Your task to perform on an android device: Add macbook pro 15 inch to the cart on ebay.com Image 0: 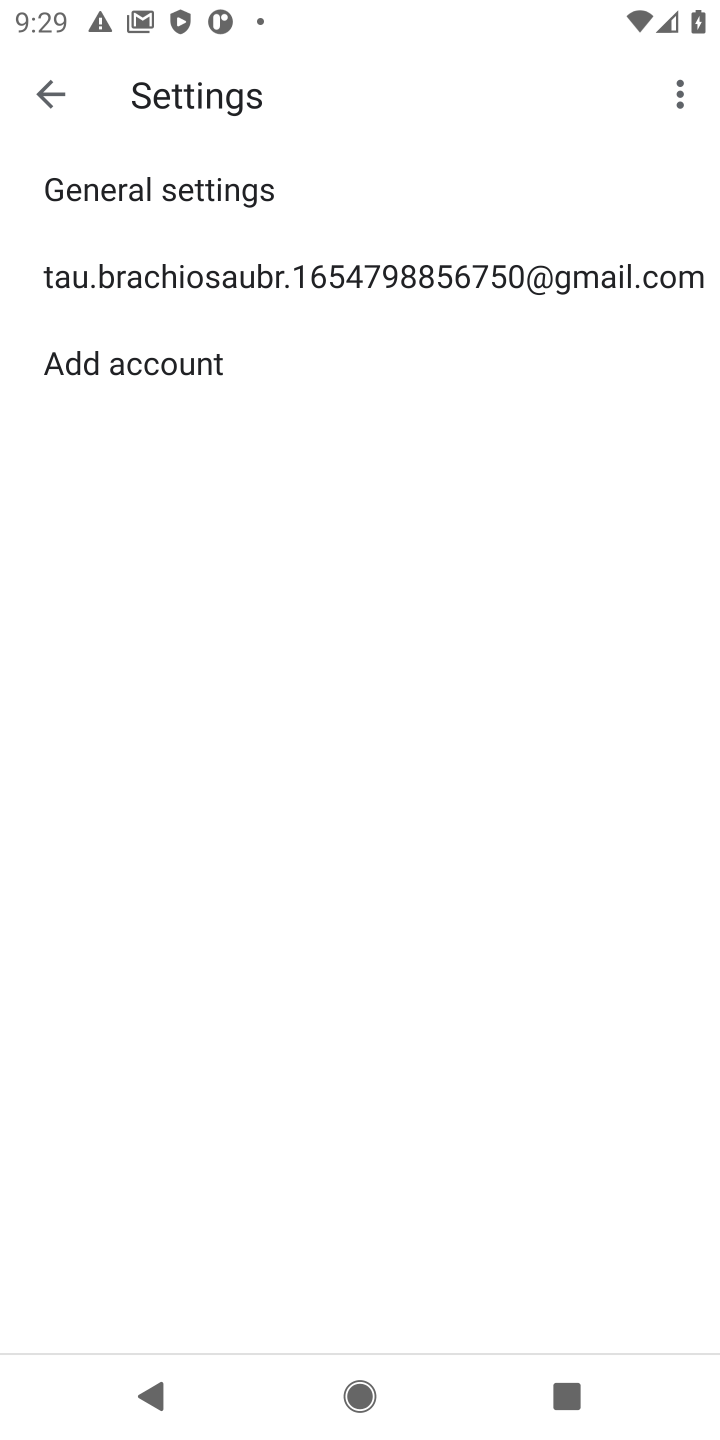
Step 0: press home button
Your task to perform on an android device: Add macbook pro 15 inch to the cart on ebay.com Image 1: 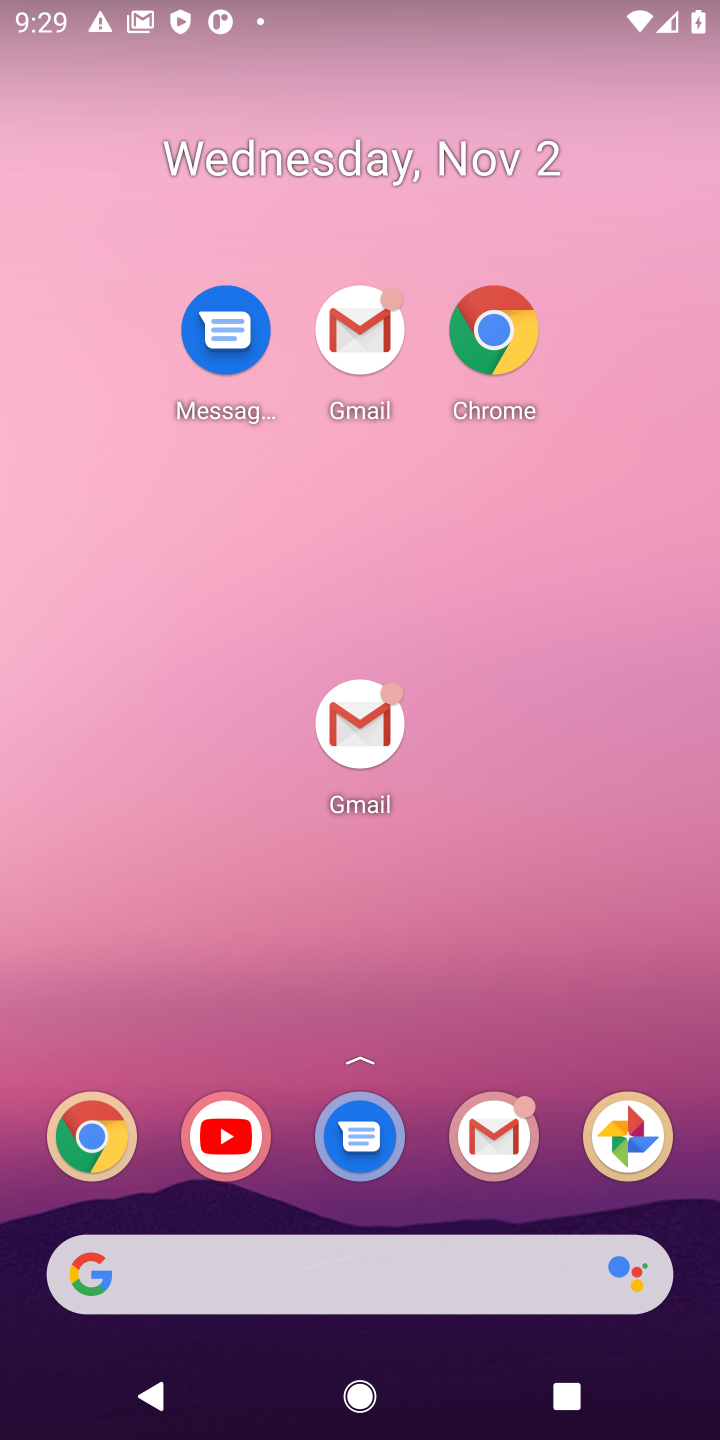
Step 1: drag from (355, 1111) to (478, 542)
Your task to perform on an android device: Add macbook pro 15 inch to the cart on ebay.com Image 2: 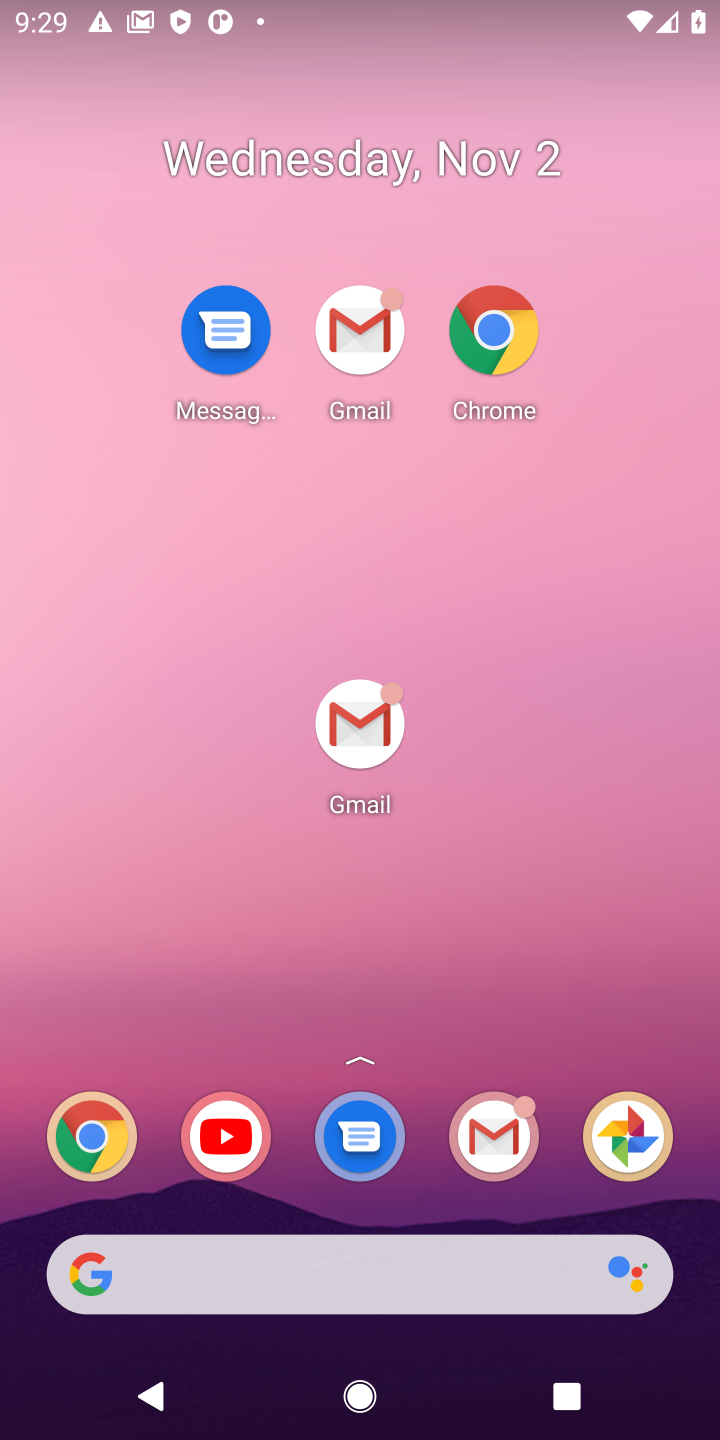
Step 2: drag from (287, 1169) to (237, 337)
Your task to perform on an android device: Add macbook pro 15 inch to the cart on ebay.com Image 3: 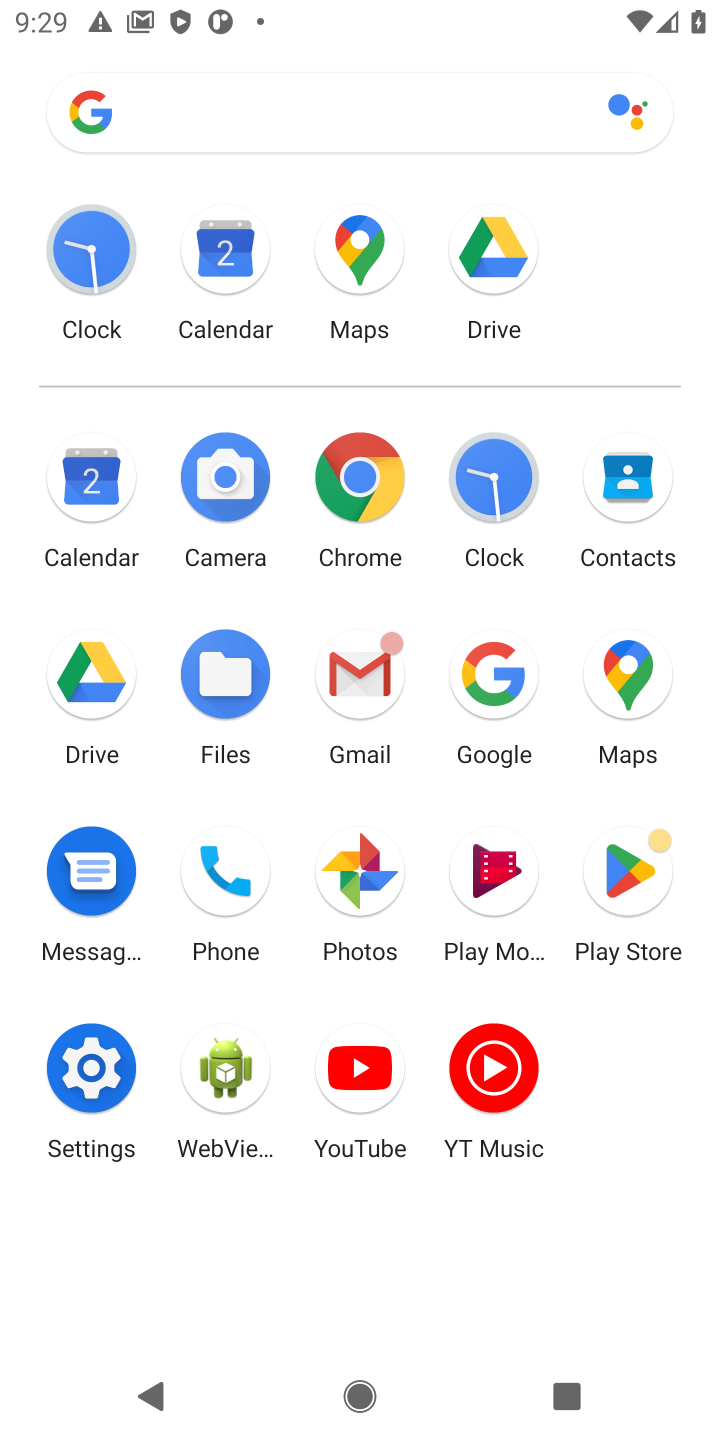
Step 3: click (486, 675)
Your task to perform on an android device: Add macbook pro 15 inch to the cart on ebay.com Image 4: 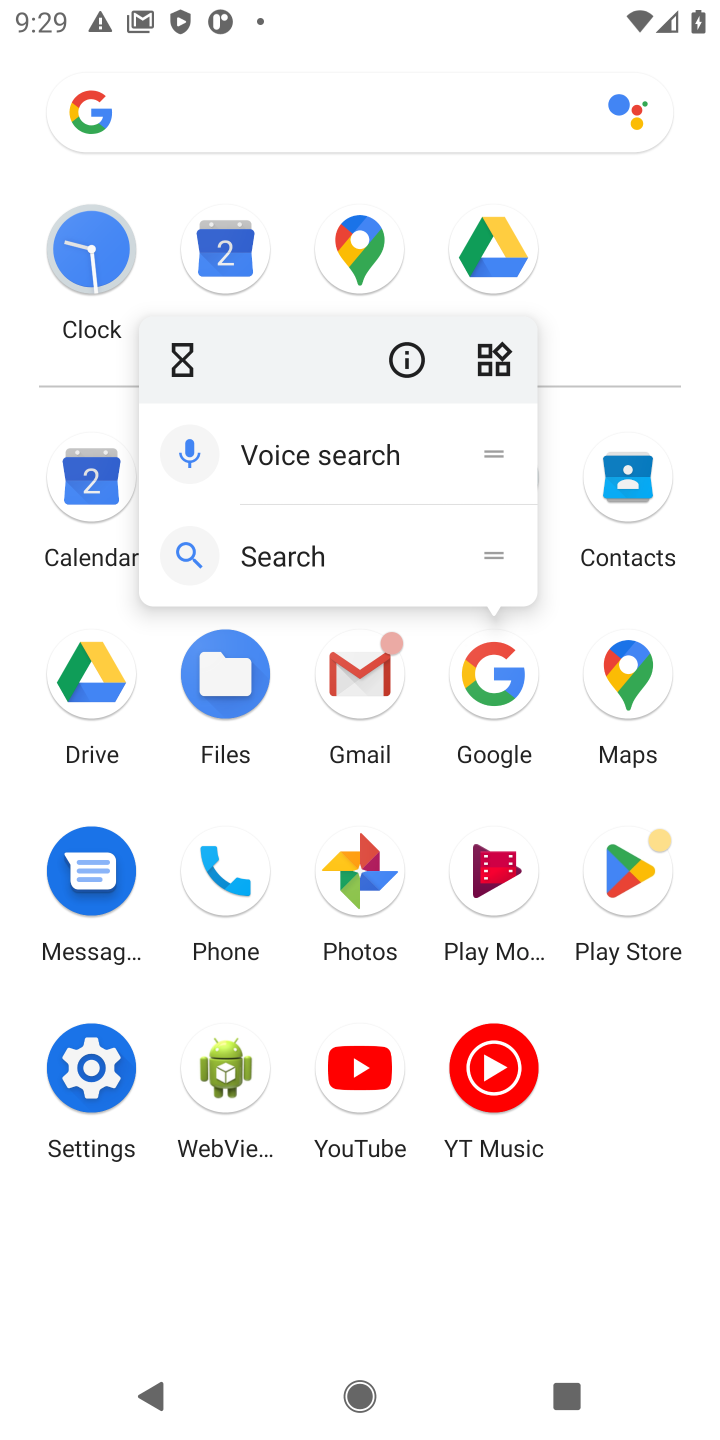
Step 4: click (480, 672)
Your task to perform on an android device: Add macbook pro 15 inch to the cart on ebay.com Image 5: 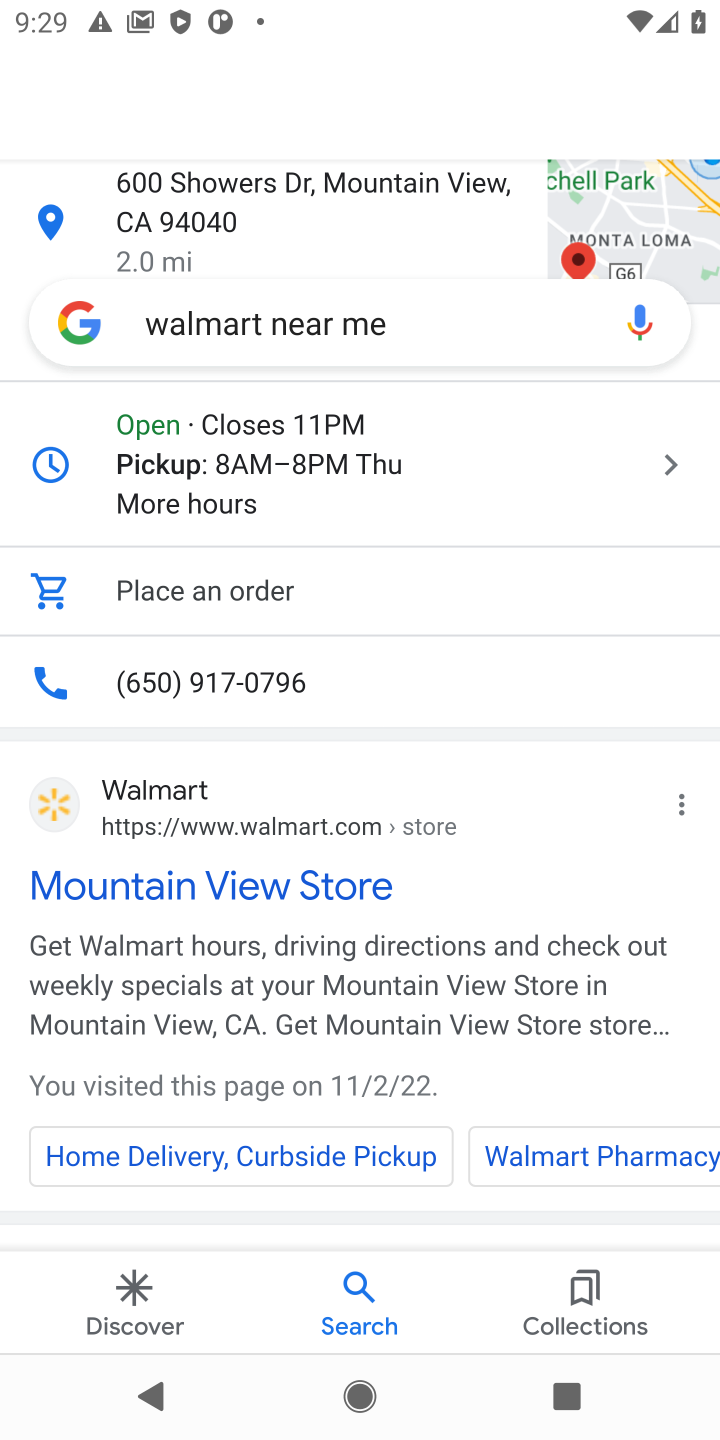
Step 5: click (391, 328)
Your task to perform on an android device: Add macbook pro 15 inch to the cart on ebay.com Image 6: 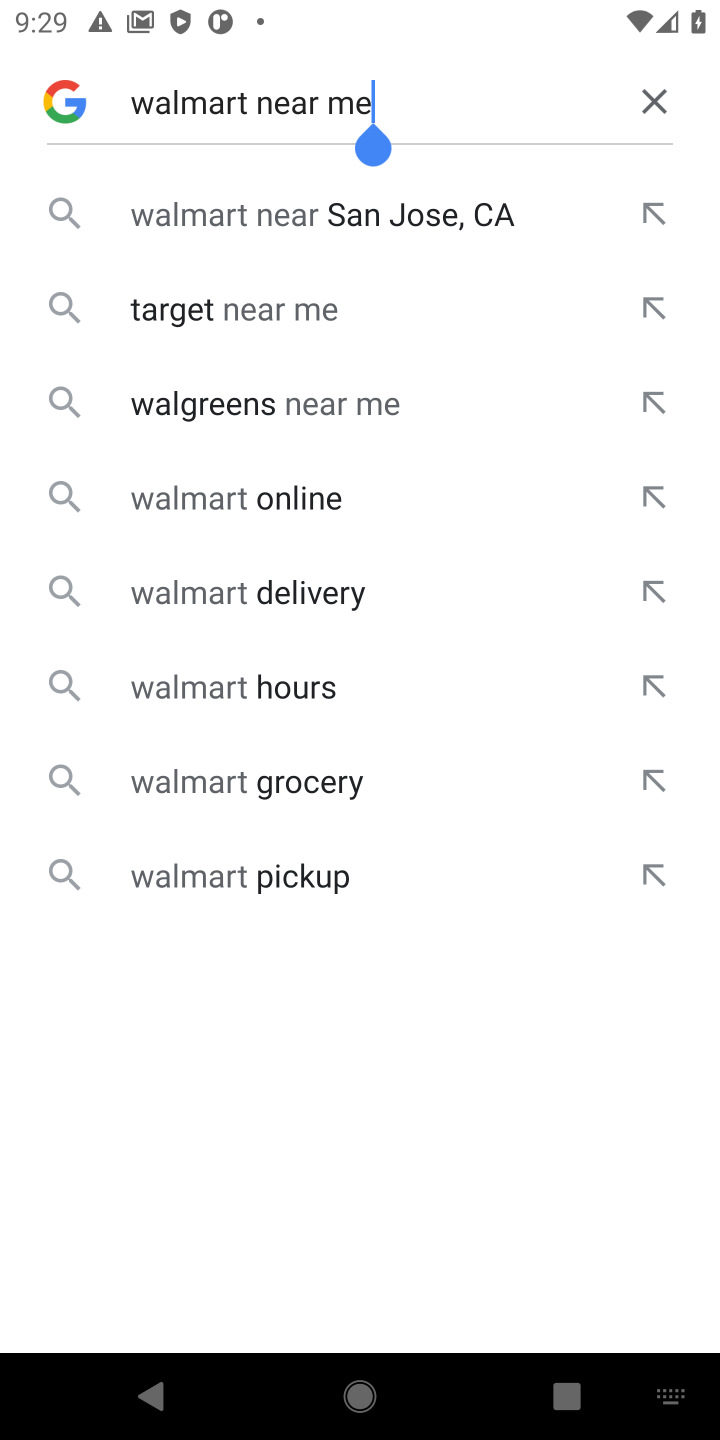
Step 6: click (657, 101)
Your task to perform on an android device: Add macbook pro 15 inch to the cart on ebay.com Image 7: 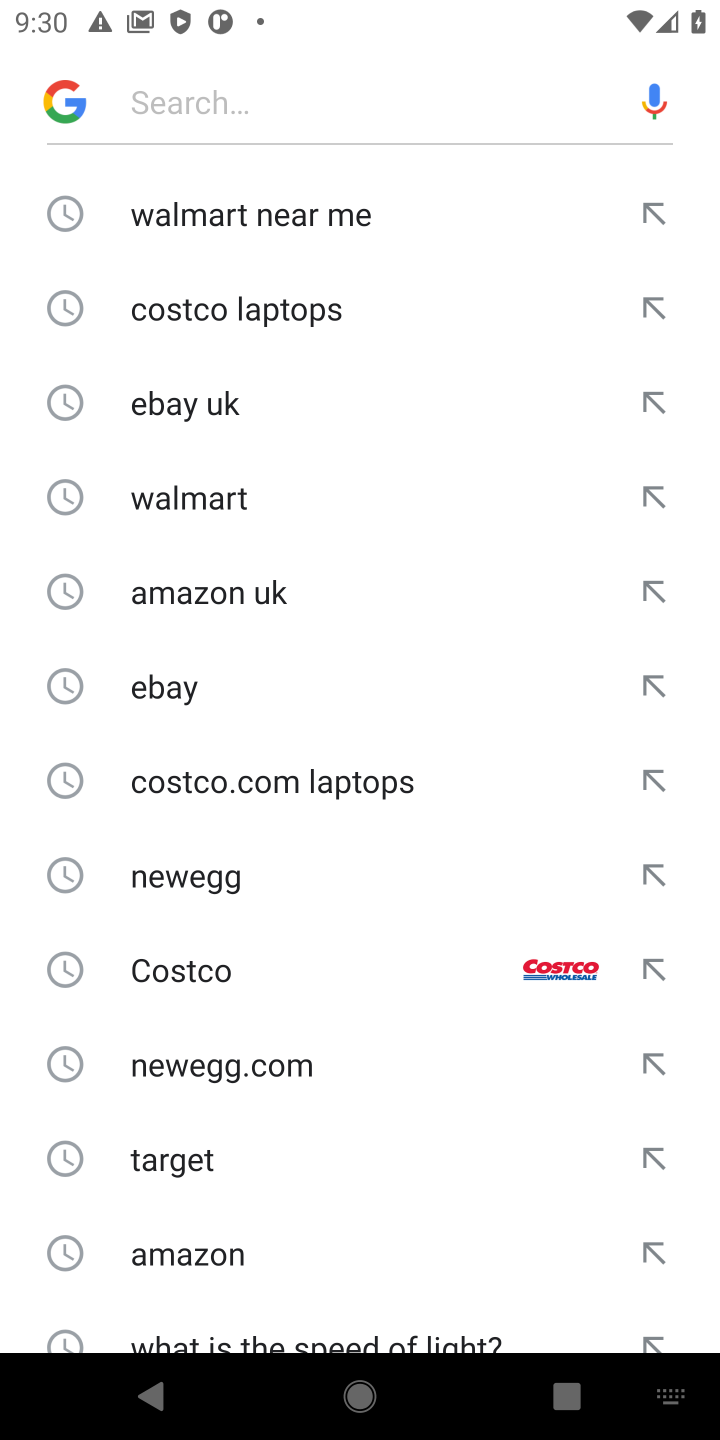
Step 7: click (263, 86)
Your task to perform on an android device: Add macbook pro 15 inch to the cart on ebay.com Image 8: 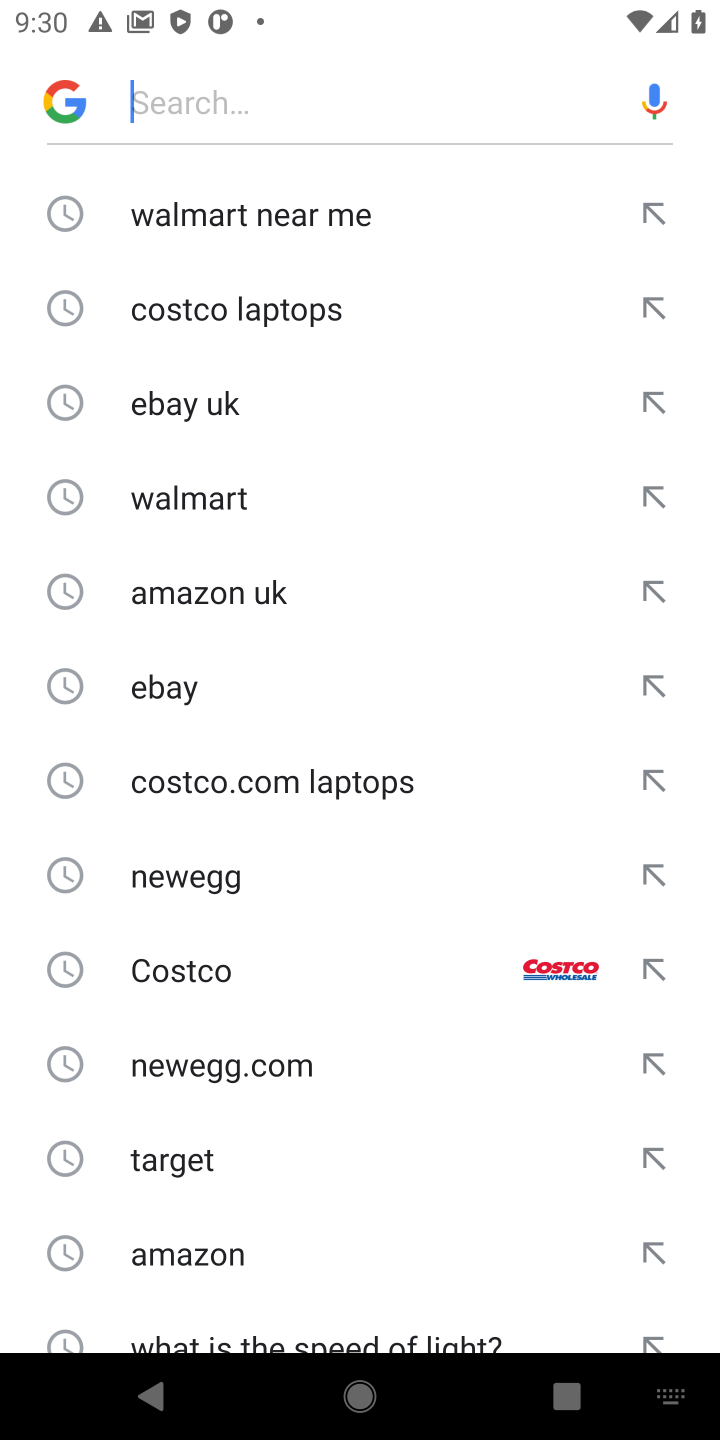
Step 8: type "ebay "
Your task to perform on an android device: Add macbook pro 15 inch to the cart on ebay.com Image 9: 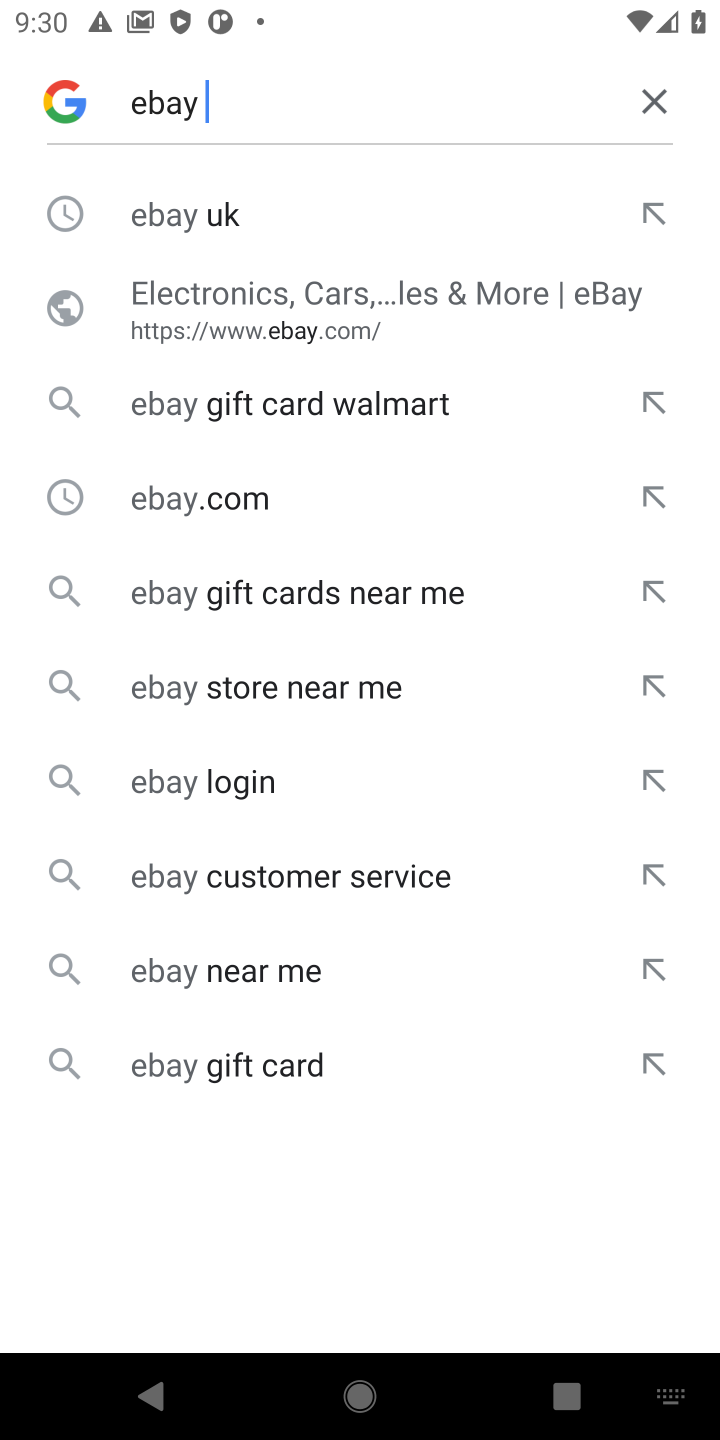
Step 9: click (146, 200)
Your task to perform on an android device: Add macbook pro 15 inch to the cart on ebay.com Image 10: 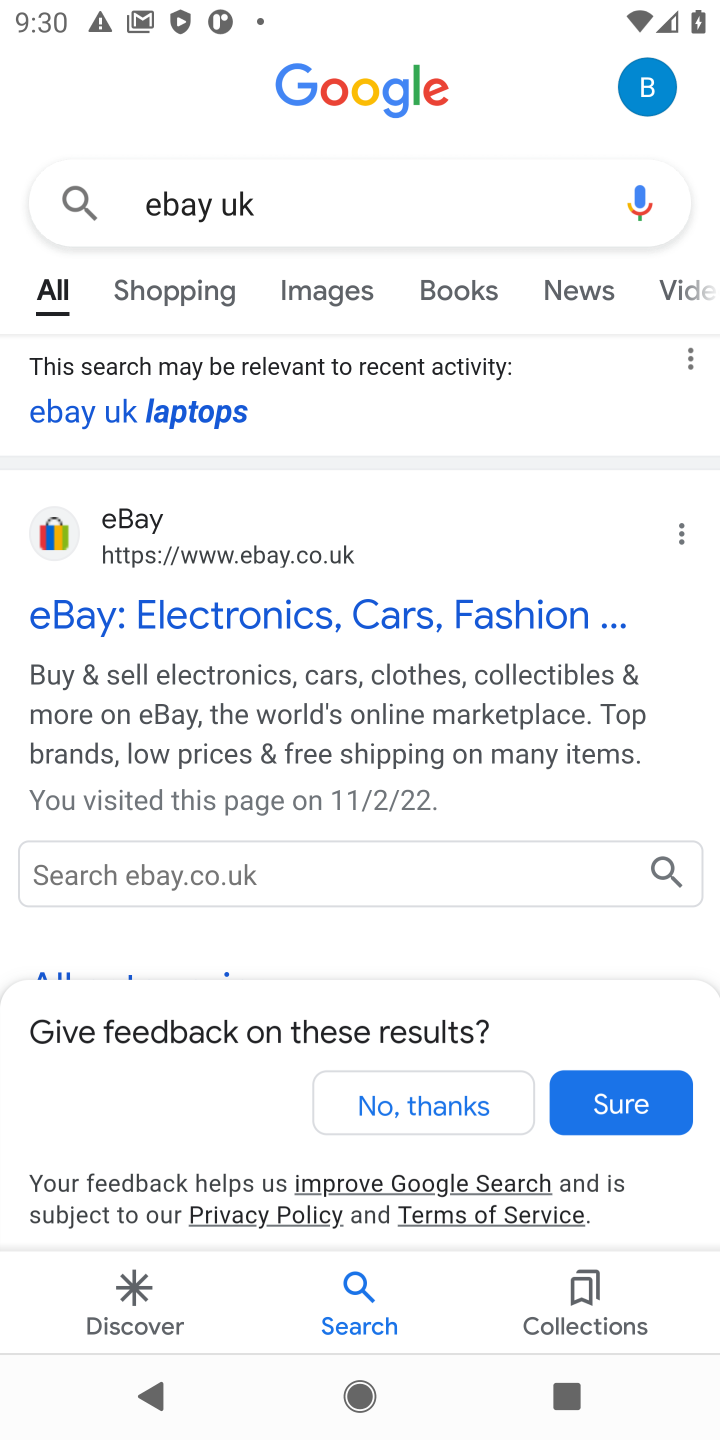
Step 10: click (64, 517)
Your task to perform on an android device: Add macbook pro 15 inch to the cart on ebay.com Image 11: 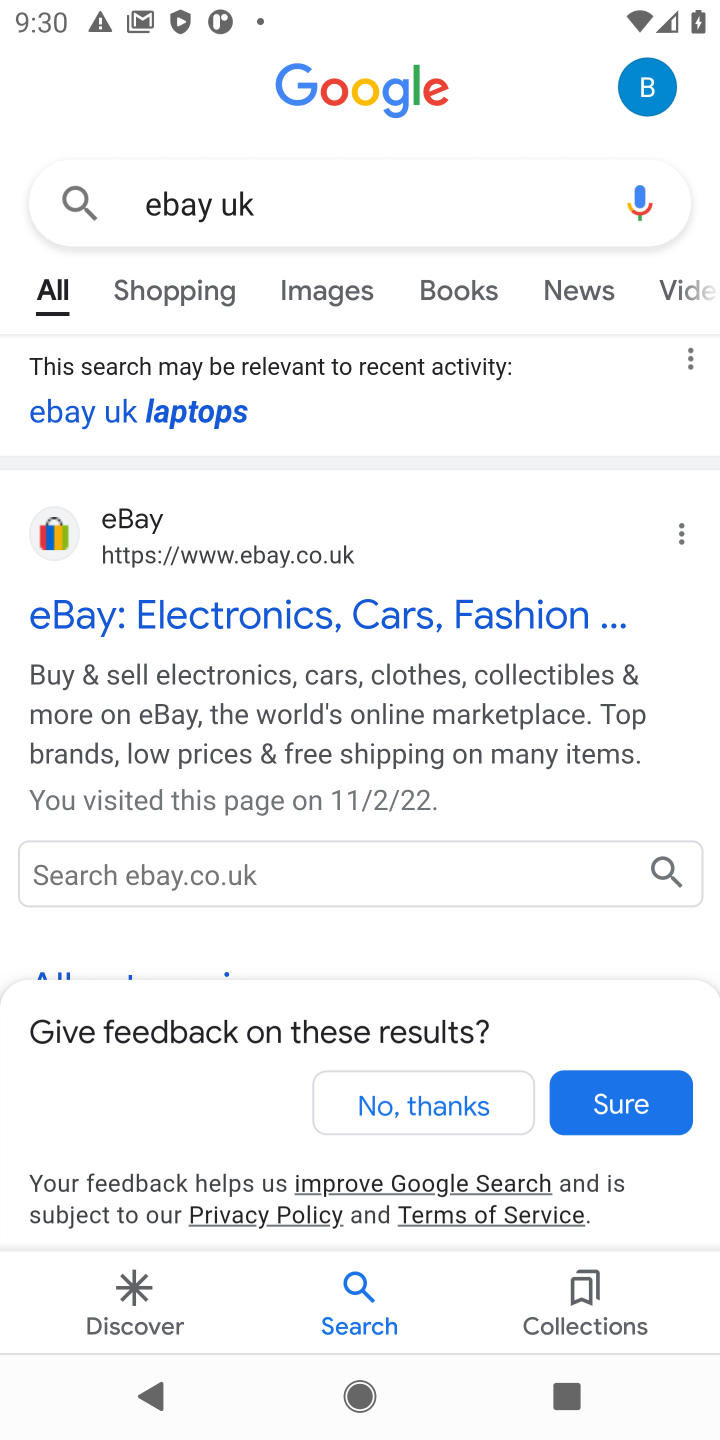
Step 11: click (45, 536)
Your task to perform on an android device: Add macbook pro 15 inch to the cart on ebay.com Image 12: 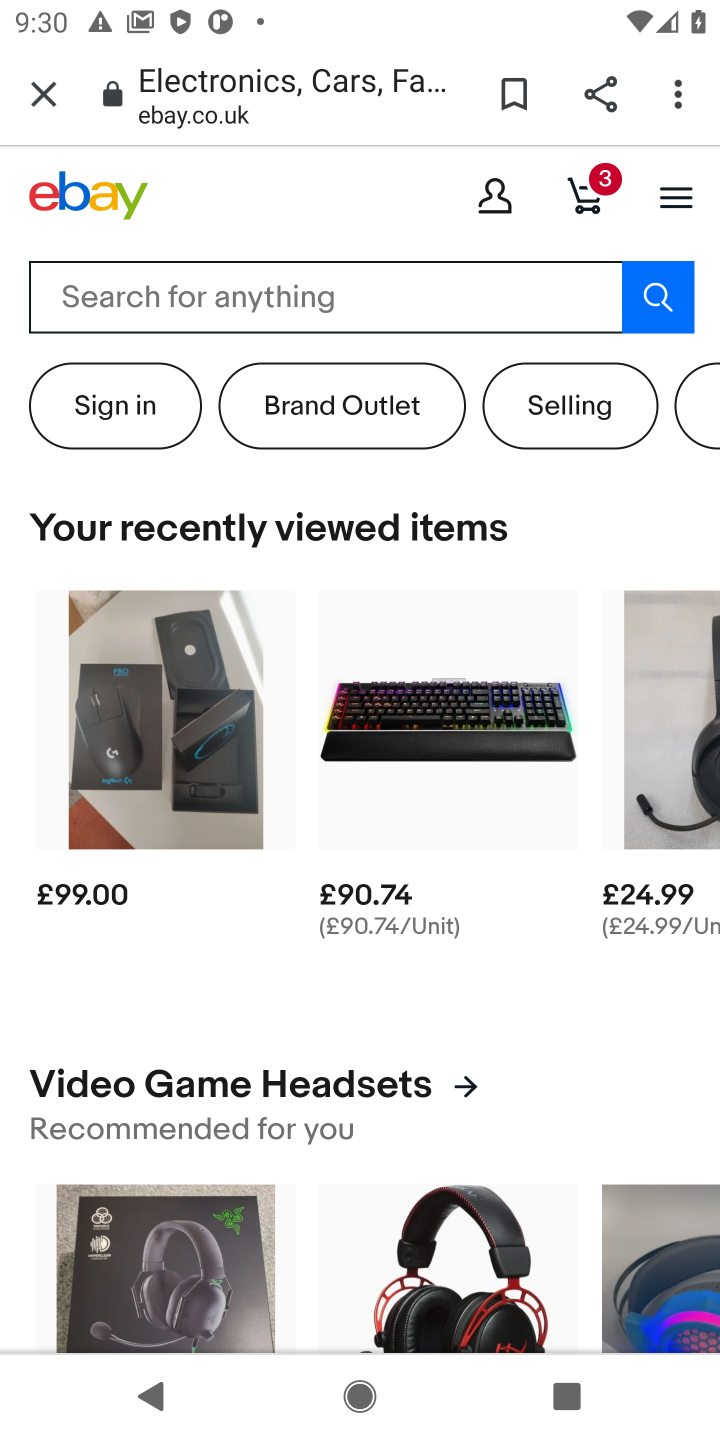
Step 12: click (208, 298)
Your task to perform on an android device: Add macbook pro 15 inch to the cart on ebay.com Image 13: 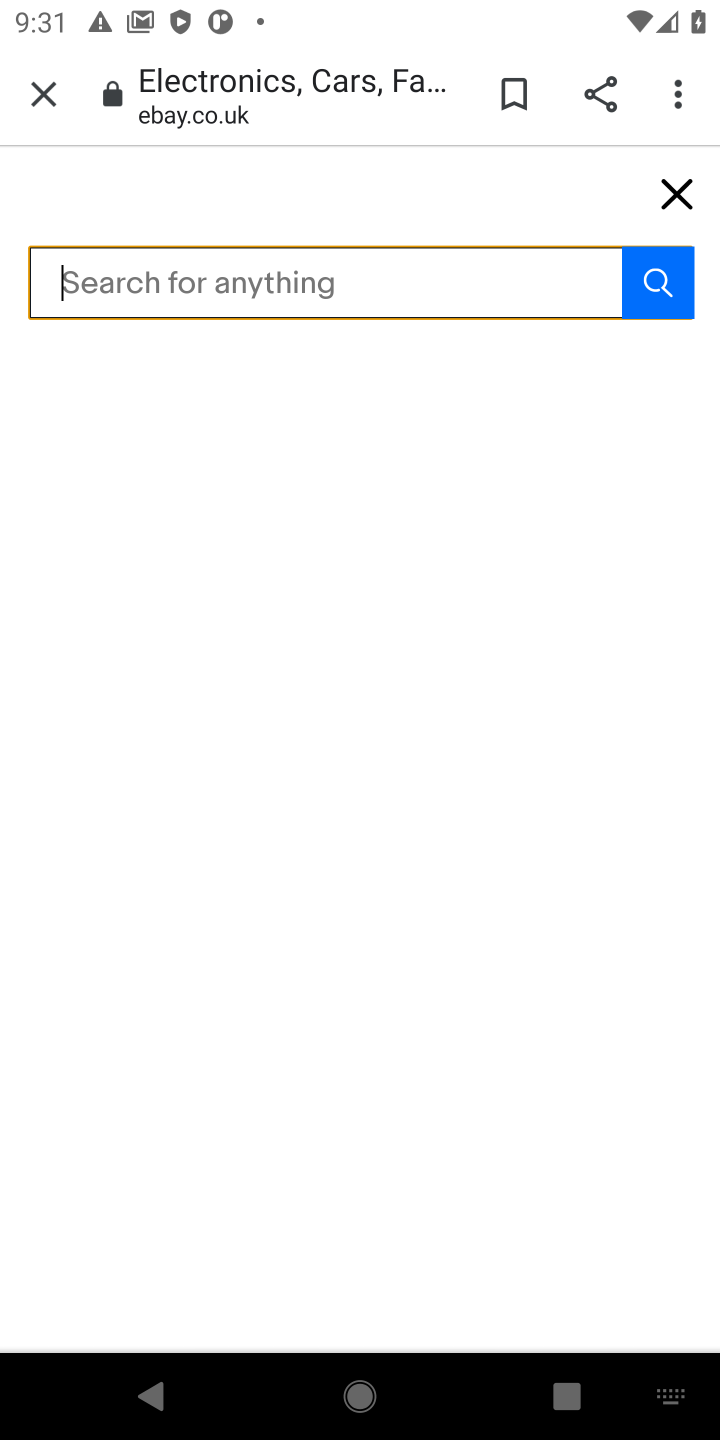
Step 13: click (283, 274)
Your task to perform on an android device: Add macbook pro 15 inch to the cart on ebay.com Image 14: 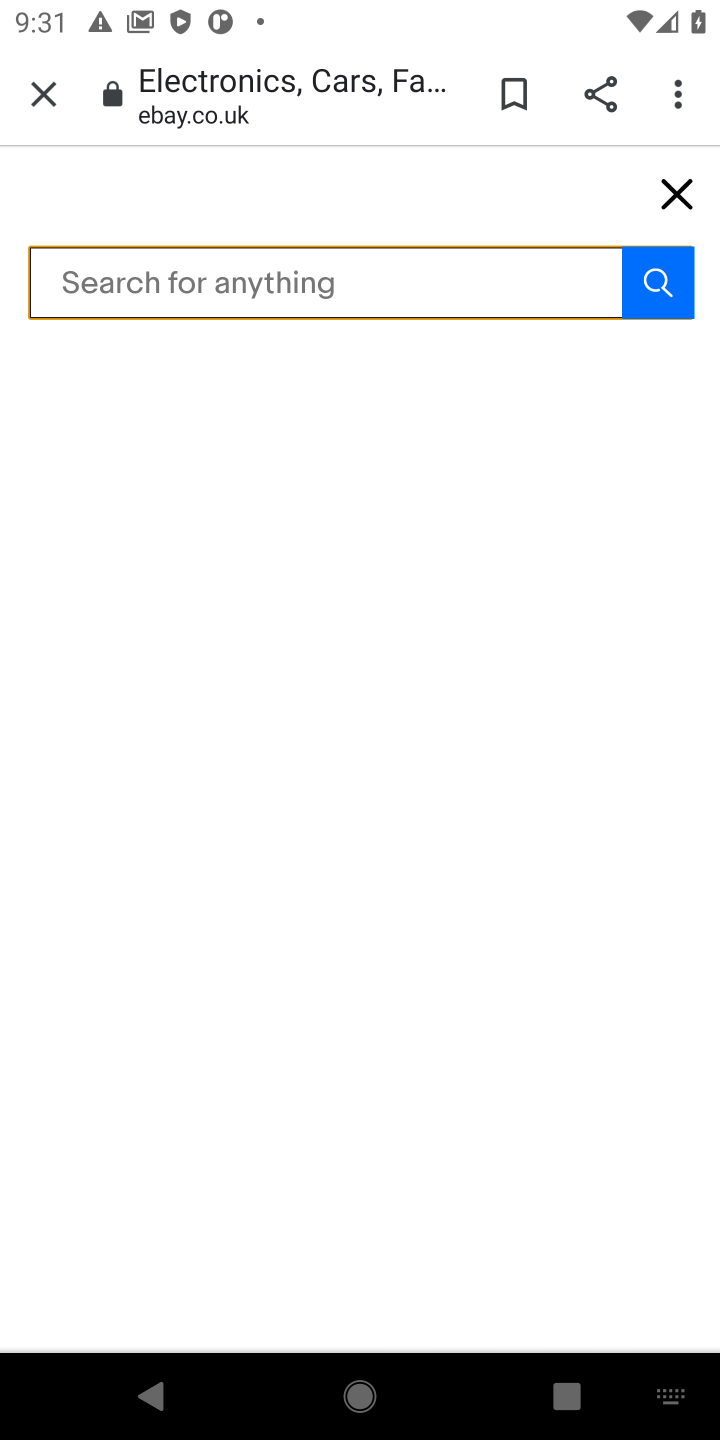
Step 14: type "macbook pro "
Your task to perform on an android device: Add macbook pro 15 inch to the cart on ebay.com Image 15: 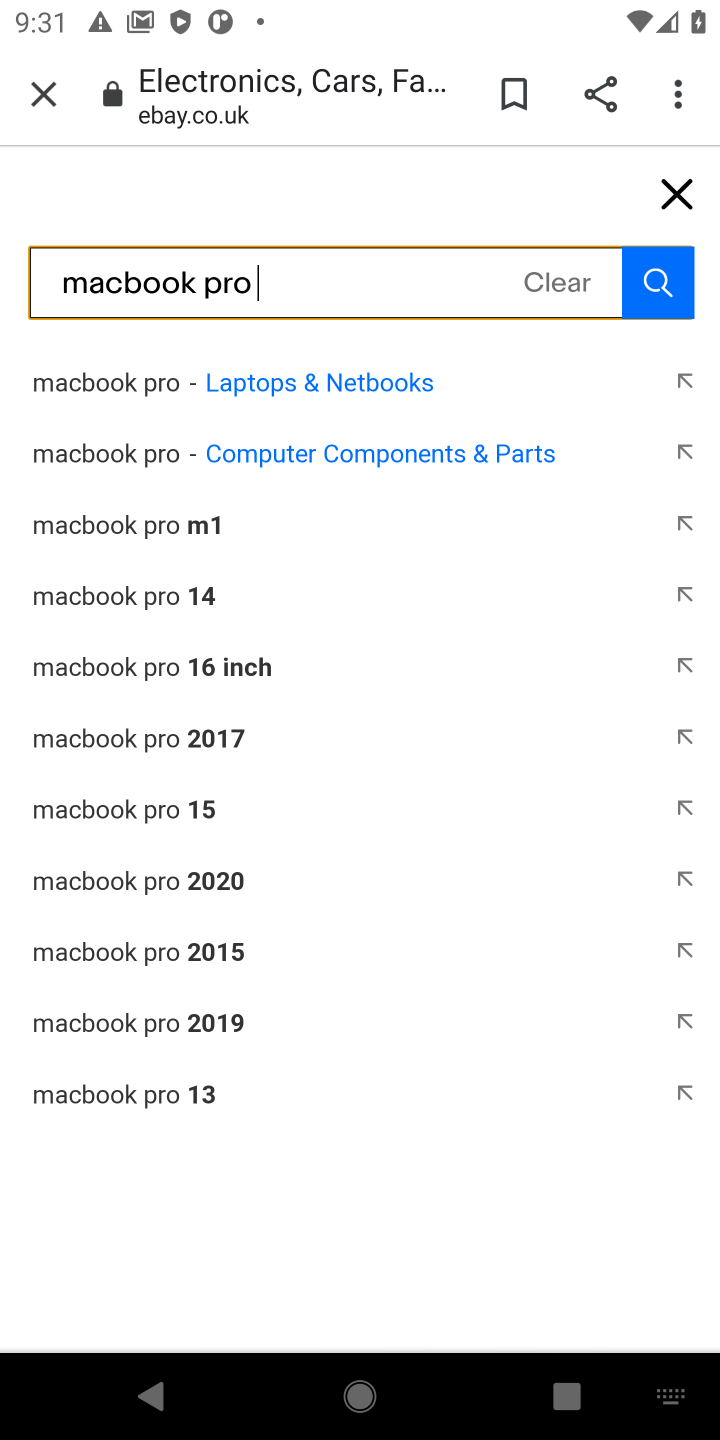
Step 15: click (153, 389)
Your task to perform on an android device: Add macbook pro 15 inch to the cart on ebay.com Image 16: 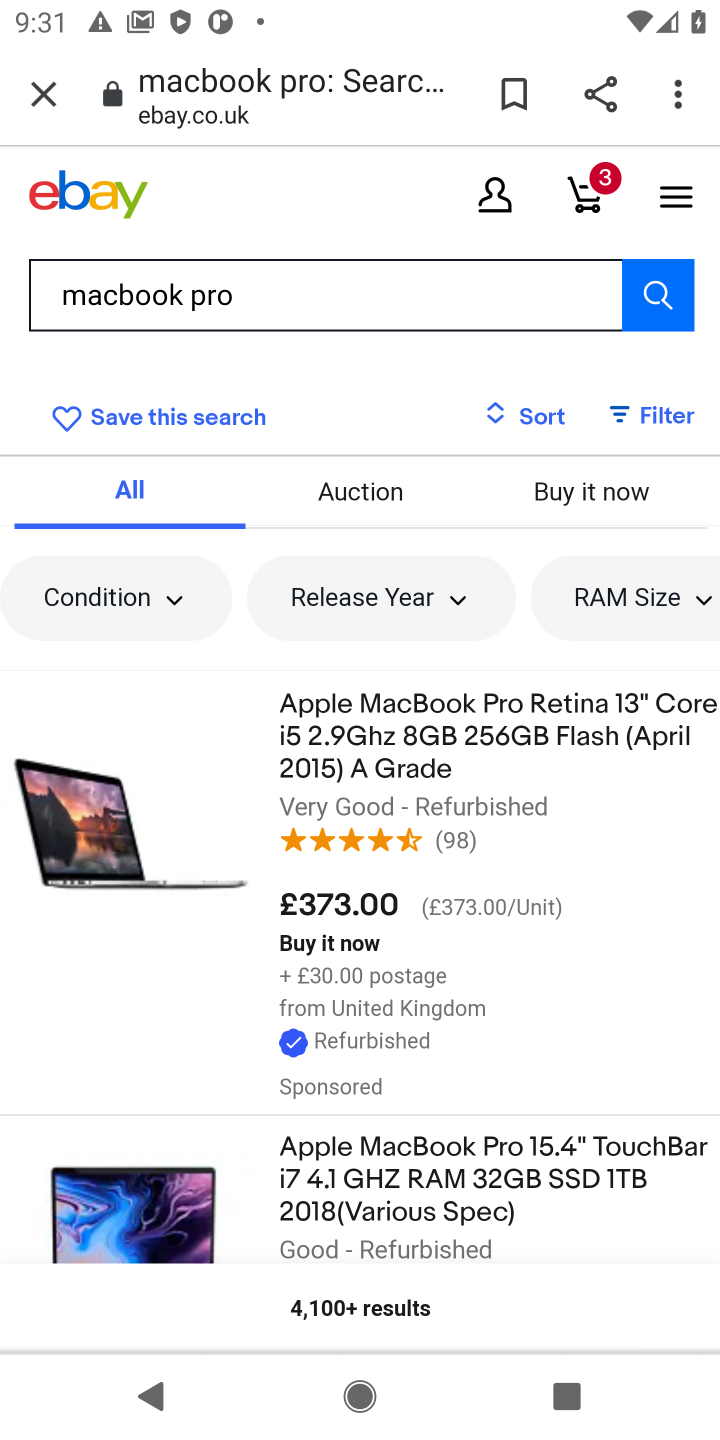
Step 16: click (402, 714)
Your task to perform on an android device: Add macbook pro 15 inch to the cart on ebay.com Image 17: 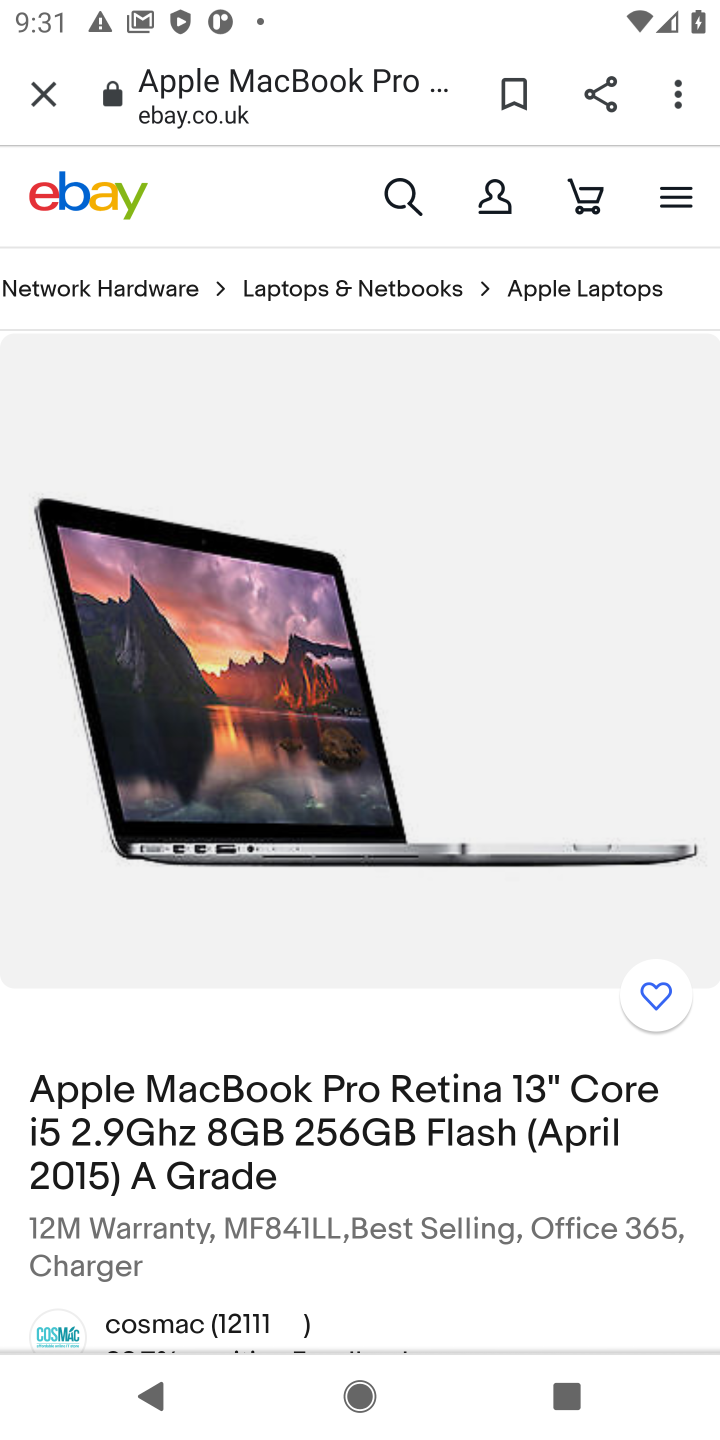
Step 17: drag from (299, 1141) to (437, 392)
Your task to perform on an android device: Add macbook pro 15 inch to the cart on ebay.com Image 18: 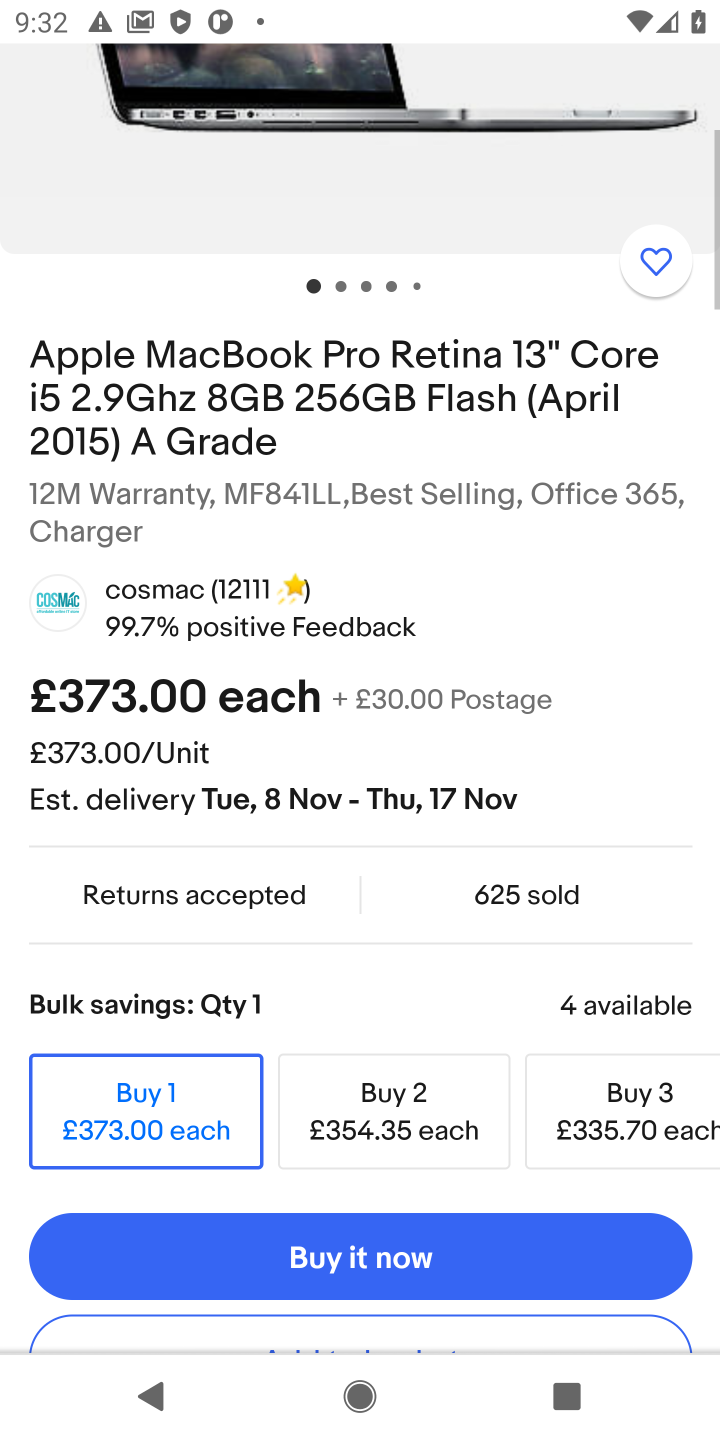
Step 18: drag from (447, 1208) to (467, 679)
Your task to perform on an android device: Add macbook pro 15 inch to the cart on ebay.com Image 19: 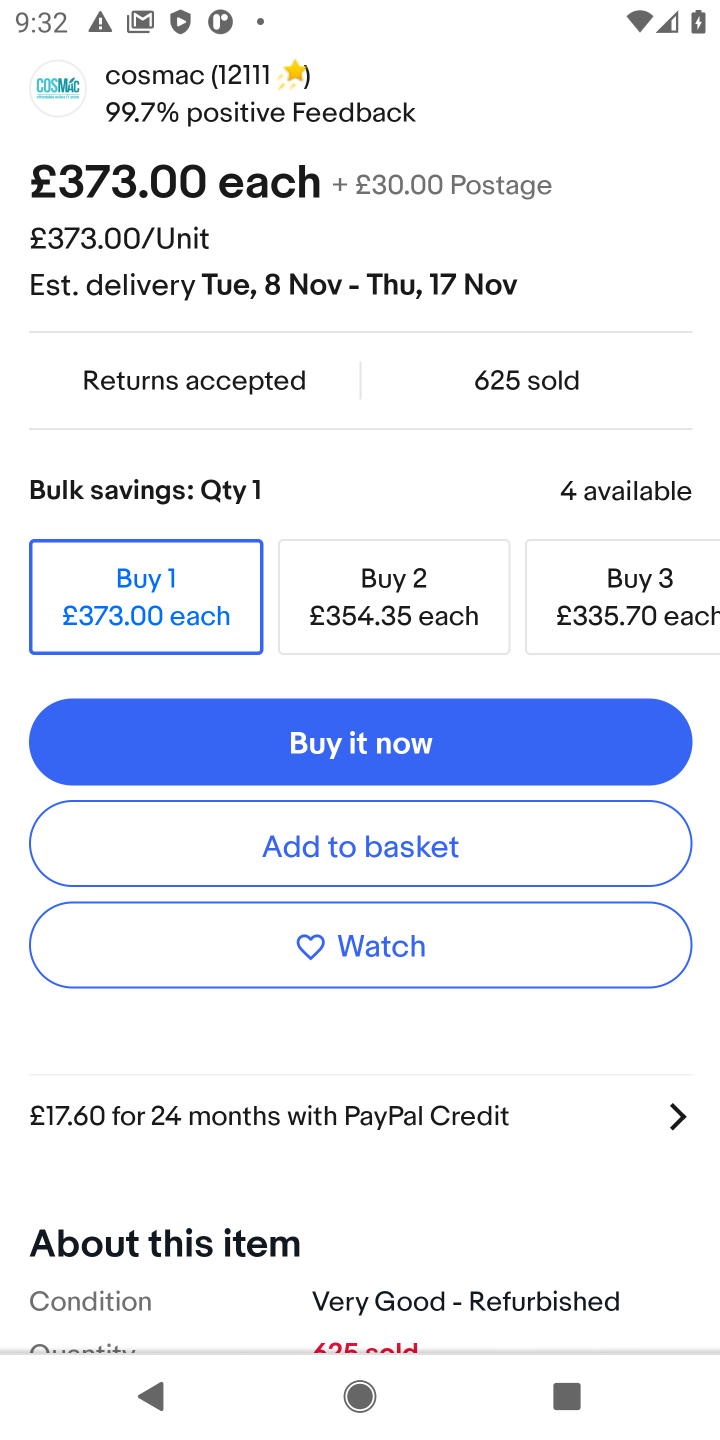
Step 19: click (444, 848)
Your task to perform on an android device: Add macbook pro 15 inch to the cart on ebay.com Image 20: 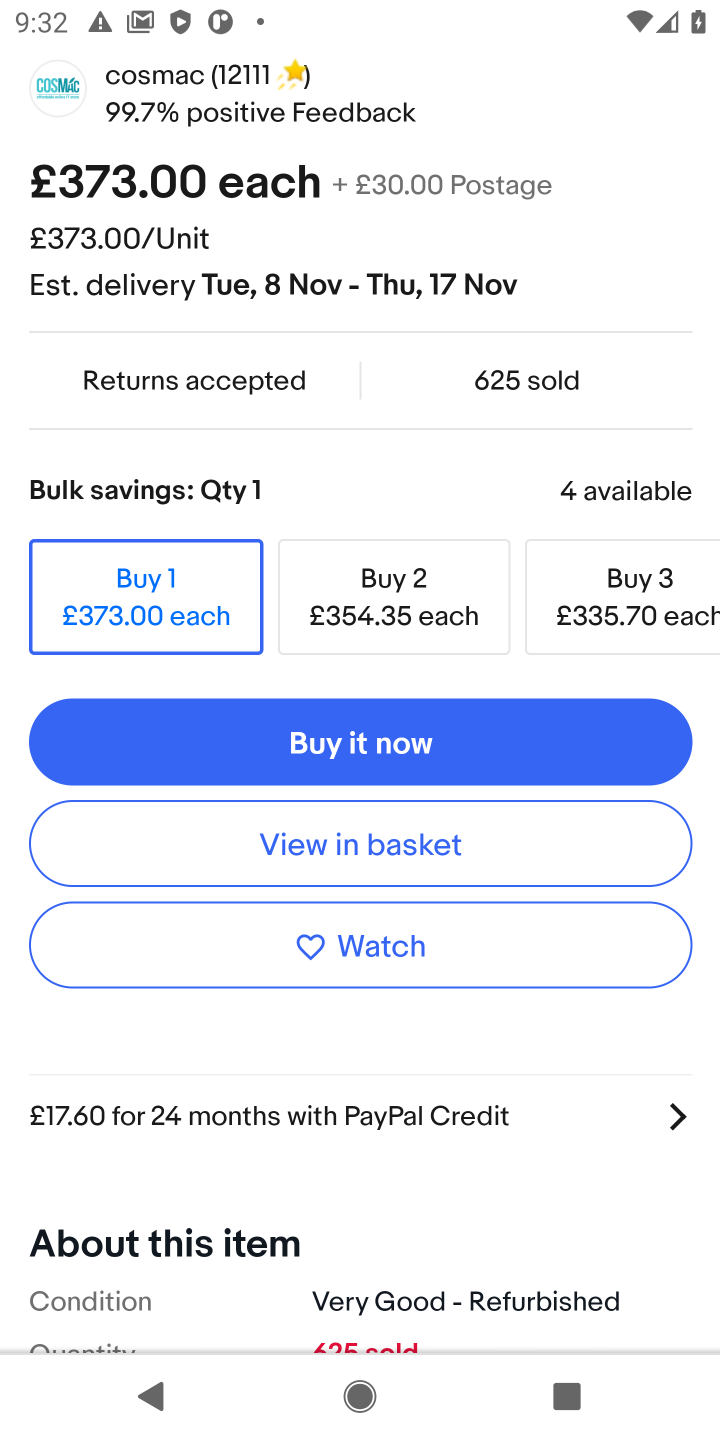
Step 20: click (444, 848)
Your task to perform on an android device: Add macbook pro 15 inch to the cart on ebay.com Image 21: 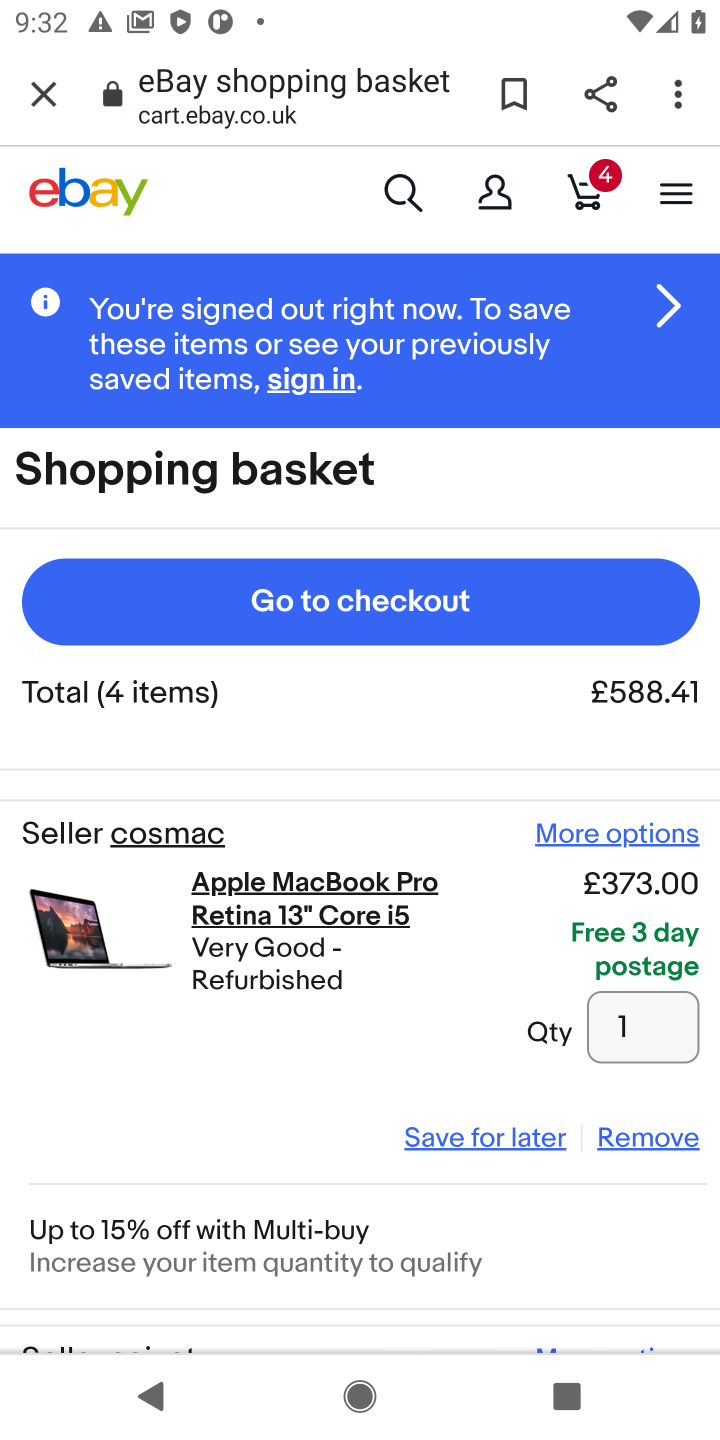
Step 21: task complete